Your task to perform on an android device: clear all cookies in the chrome app Image 0: 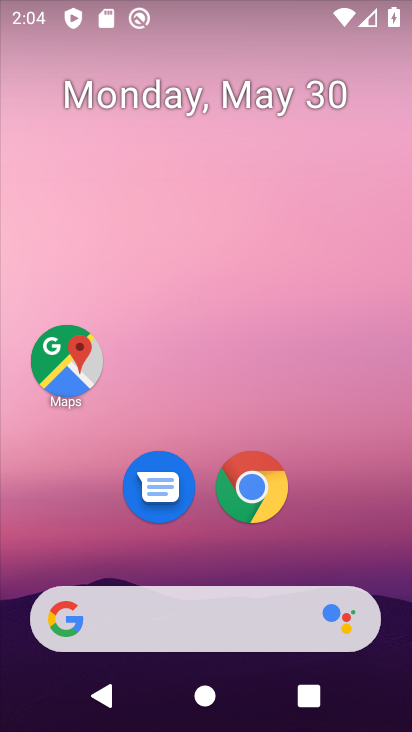
Step 0: drag from (238, 570) to (235, 215)
Your task to perform on an android device: clear all cookies in the chrome app Image 1: 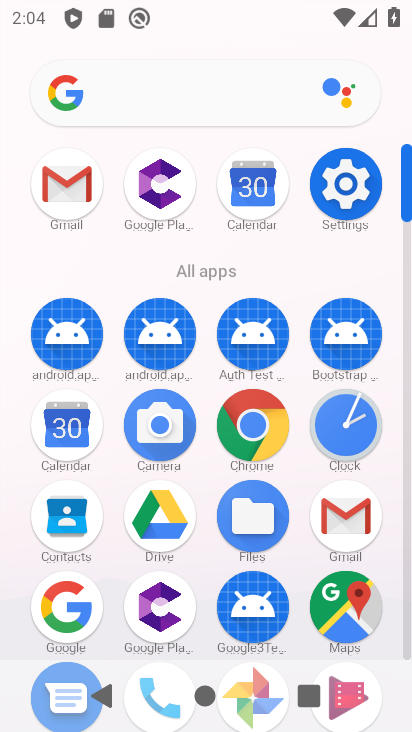
Step 1: click (340, 195)
Your task to perform on an android device: clear all cookies in the chrome app Image 2: 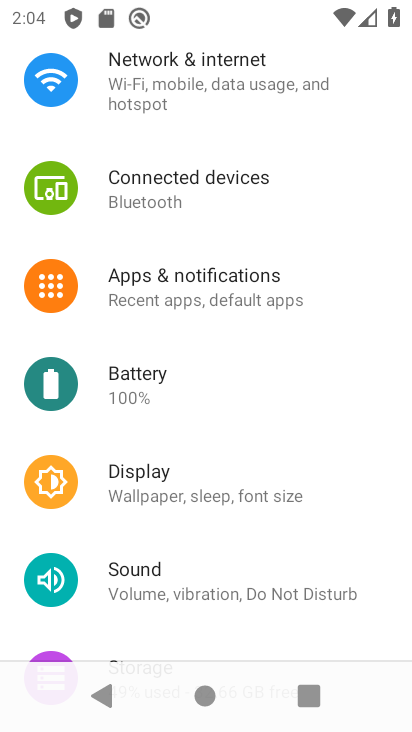
Step 2: press home button
Your task to perform on an android device: clear all cookies in the chrome app Image 3: 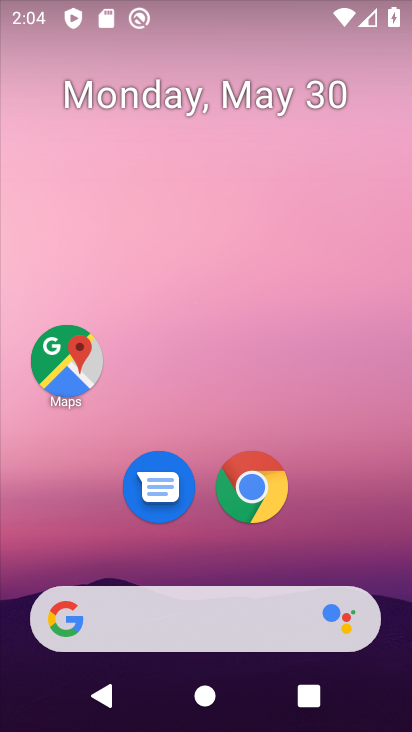
Step 3: drag from (196, 675) to (185, 234)
Your task to perform on an android device: clear all cookies in the chrome app Image 4: 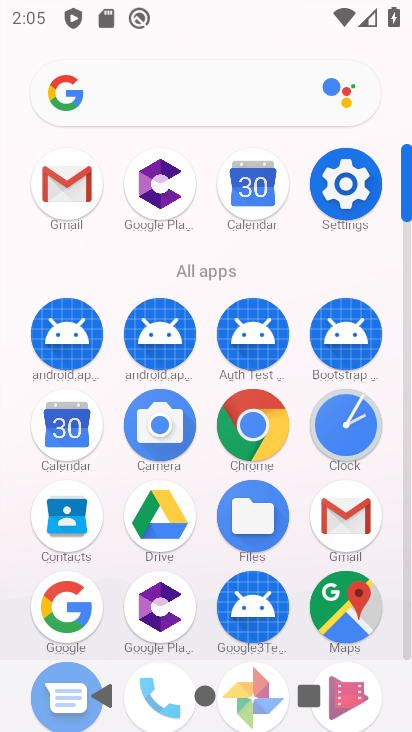
Step 4: click (261, 438)
Your task to perform on an android device: clear all cookies in the chrome app Image 5: 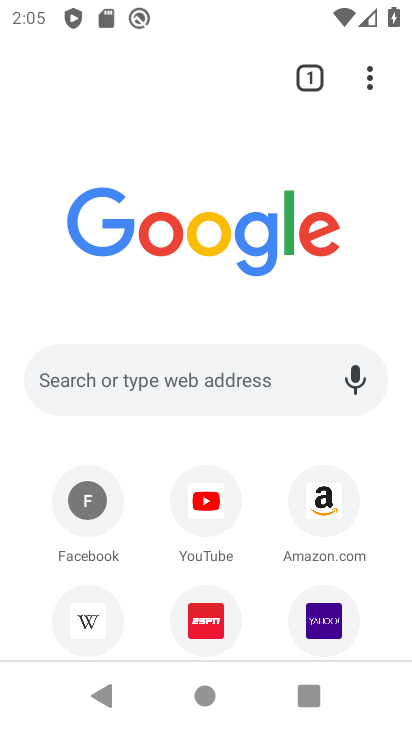
Step 5: click (370, 85)
Your task to perform on an android device: clear all cookies in the chrome app Image 6: 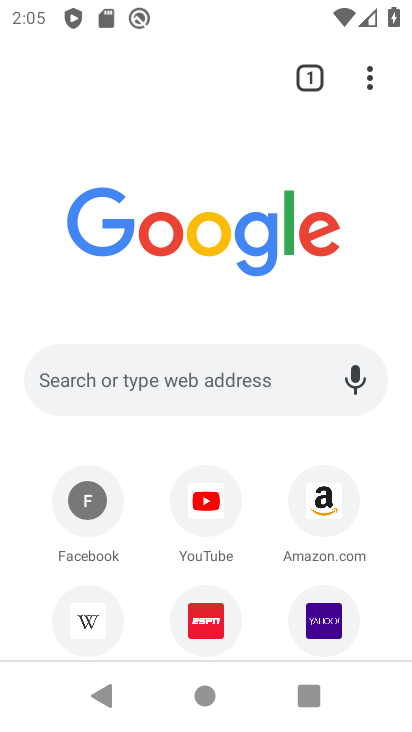
Step 6: click (372, 80)
Your task to perform on an android device: clear all cookies in the chrome app Image 7: 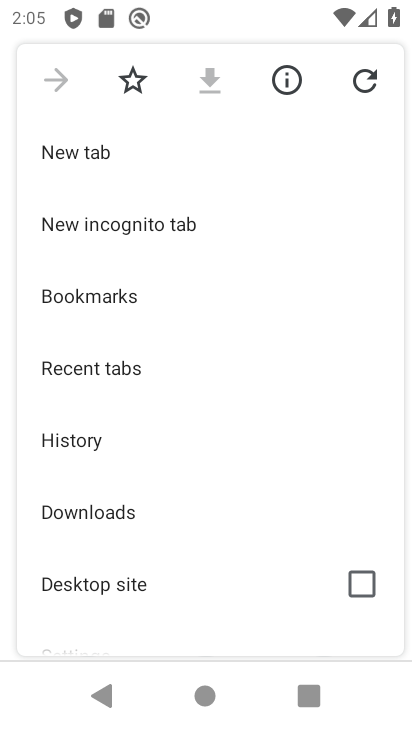
Step 7: drag from (114, 563) to (120, 192)
Your task to perform on an android device: clear all cookies in the chrome app Image 8: 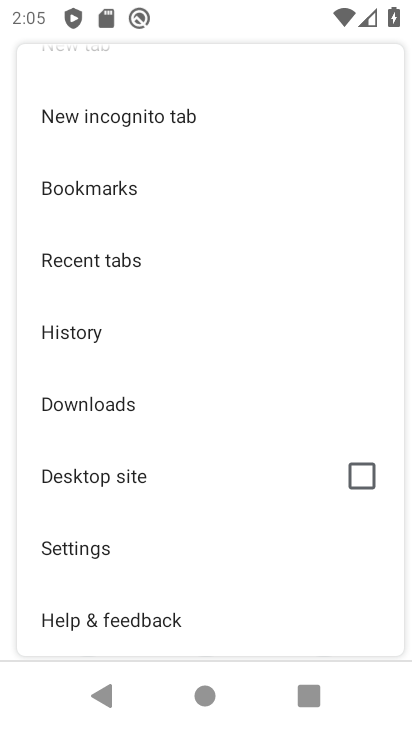
Step 8: click (59, 337)
Your task to perform on an android device: clear all cookies in the chrome app Image 9: 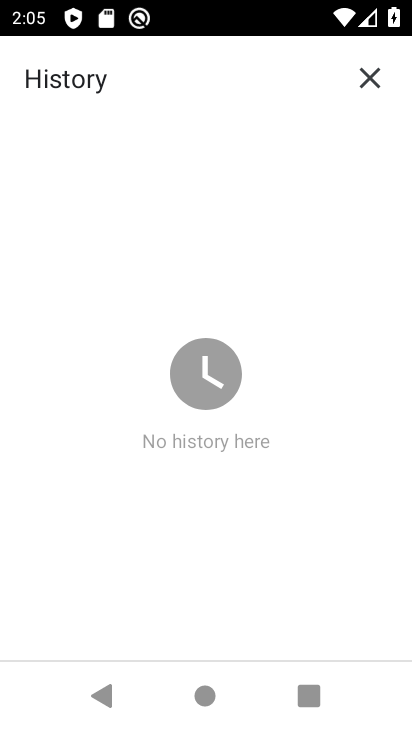
Step 9: task complete